Your task to perform on an android device: open chrome privacy settings Image 0: 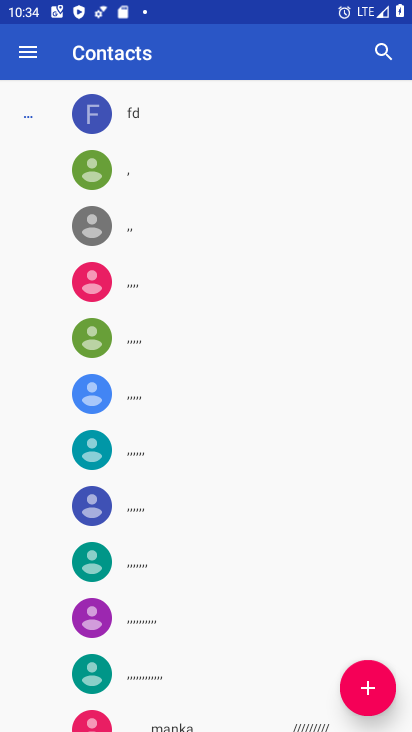
Step 0: press home button
Your task to perform on an android device: open chrome privacy settings Image 1: 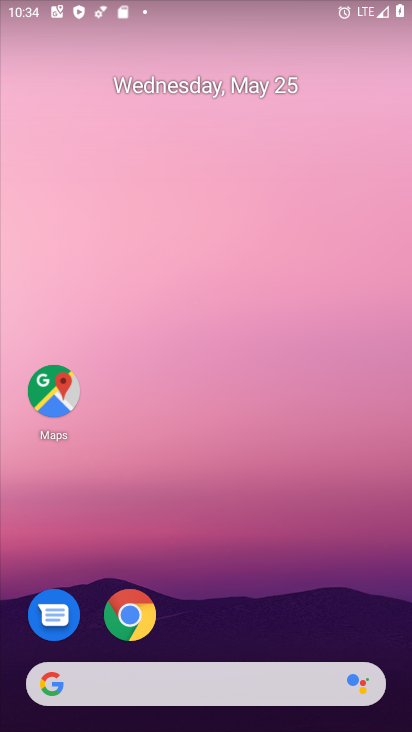
Step 1: click (127, 626)
Your task to perform on an android device: open chrome privacy settings Image 2: 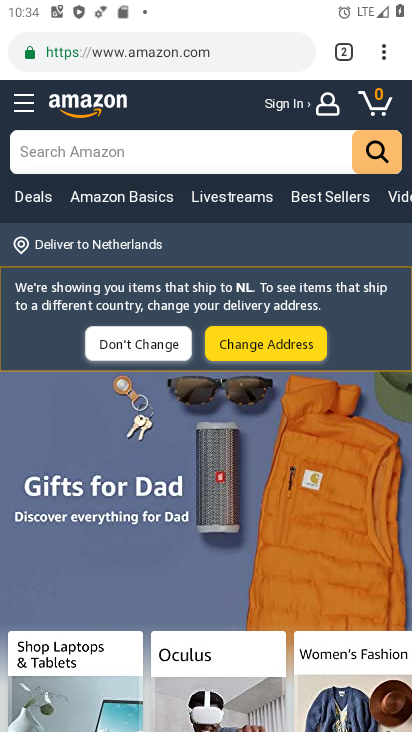
Step 2: click (380, 52)
Your task to perform on an android device: open chrome privacy settings Image 3: 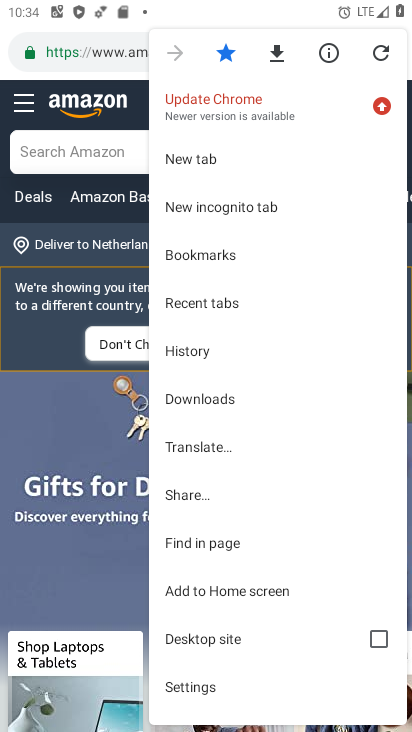
Step 3: click (249, 683)
Your task to perform on an android device: open chrome privacy settings Image 4: 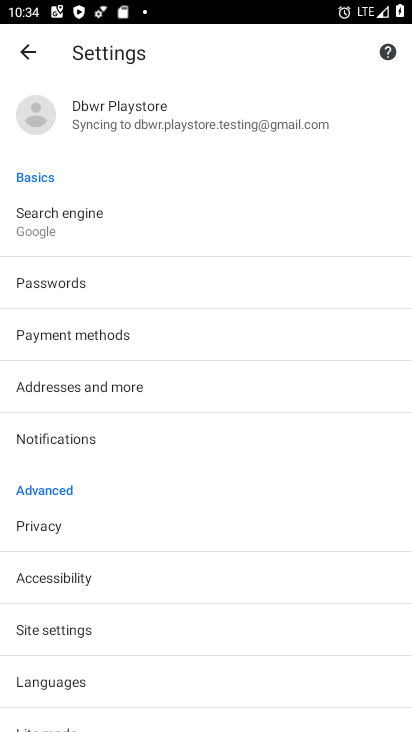
Step 4: click (98, 526)
Your task to perform on an android device: open chrome privacy settings Image 5: 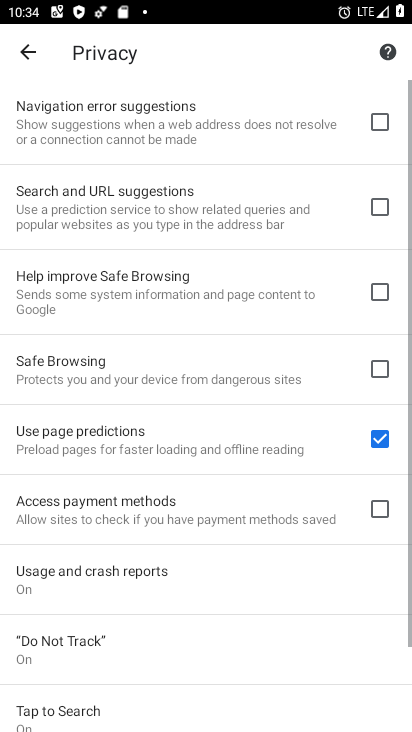
Step 5: task complete